Your task to perform on an android device: Show me popular videos on Youtube Image 0: 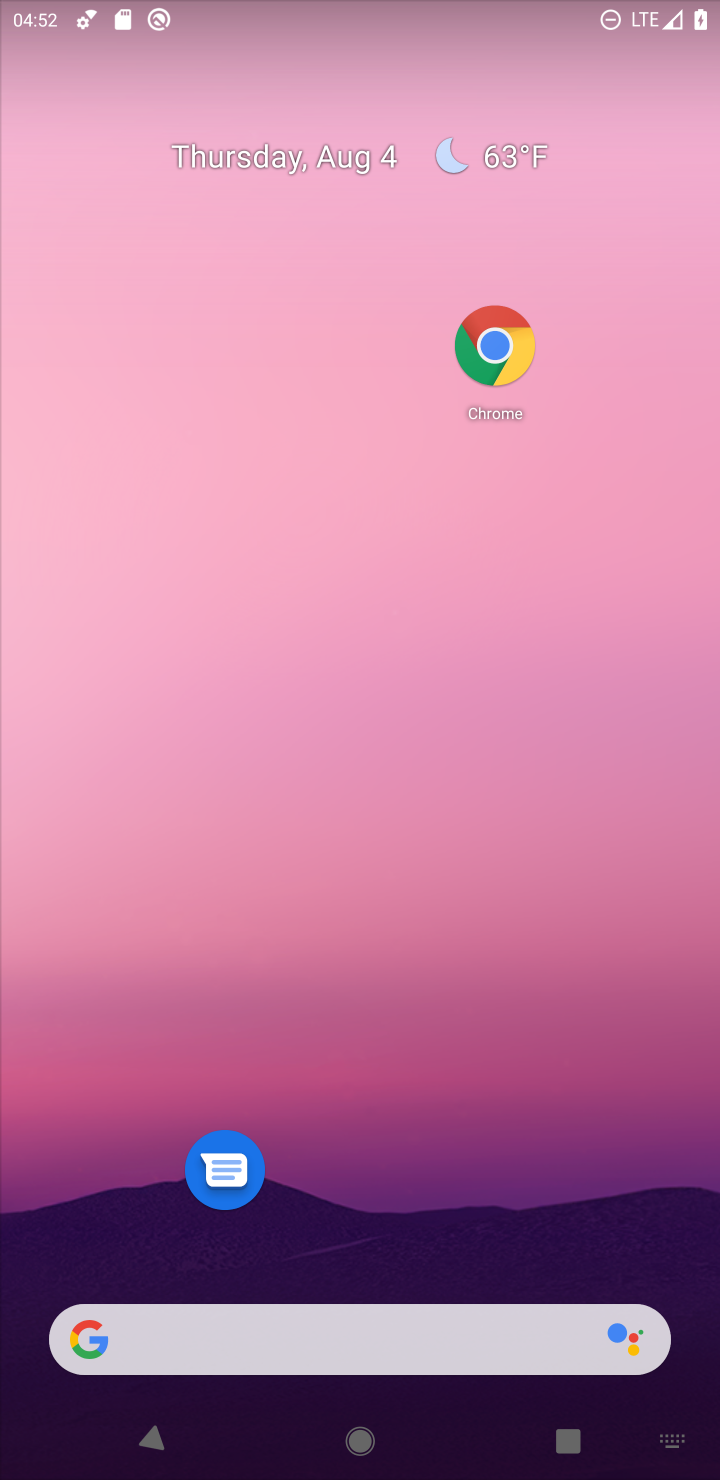
Step 0: drag from (672, 1250) to (567, 248)
Your task to perform on an android device: Show me popular videos on Youtube Image 1: 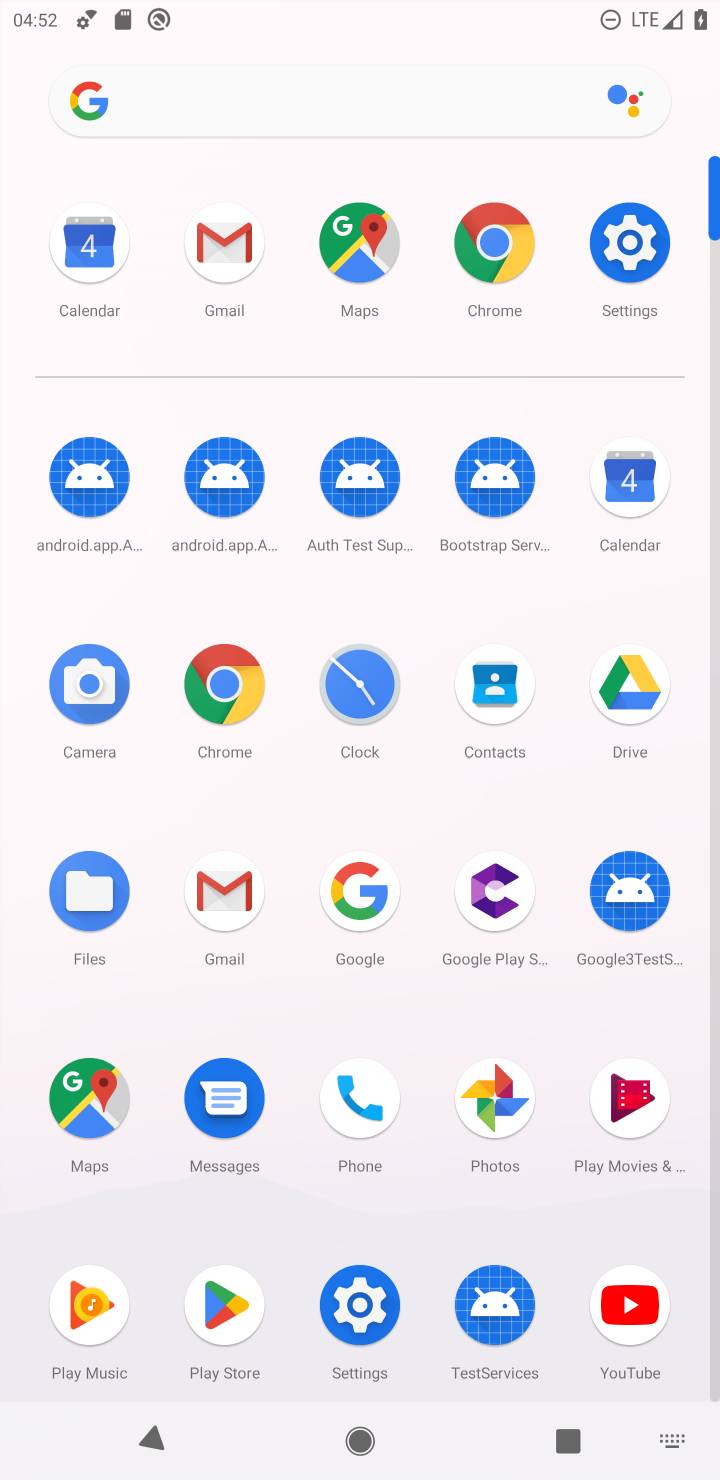
Step 1: click (634, 1319)
Your task to perform on an android device: Show me popular videos on Youtube Image 2: 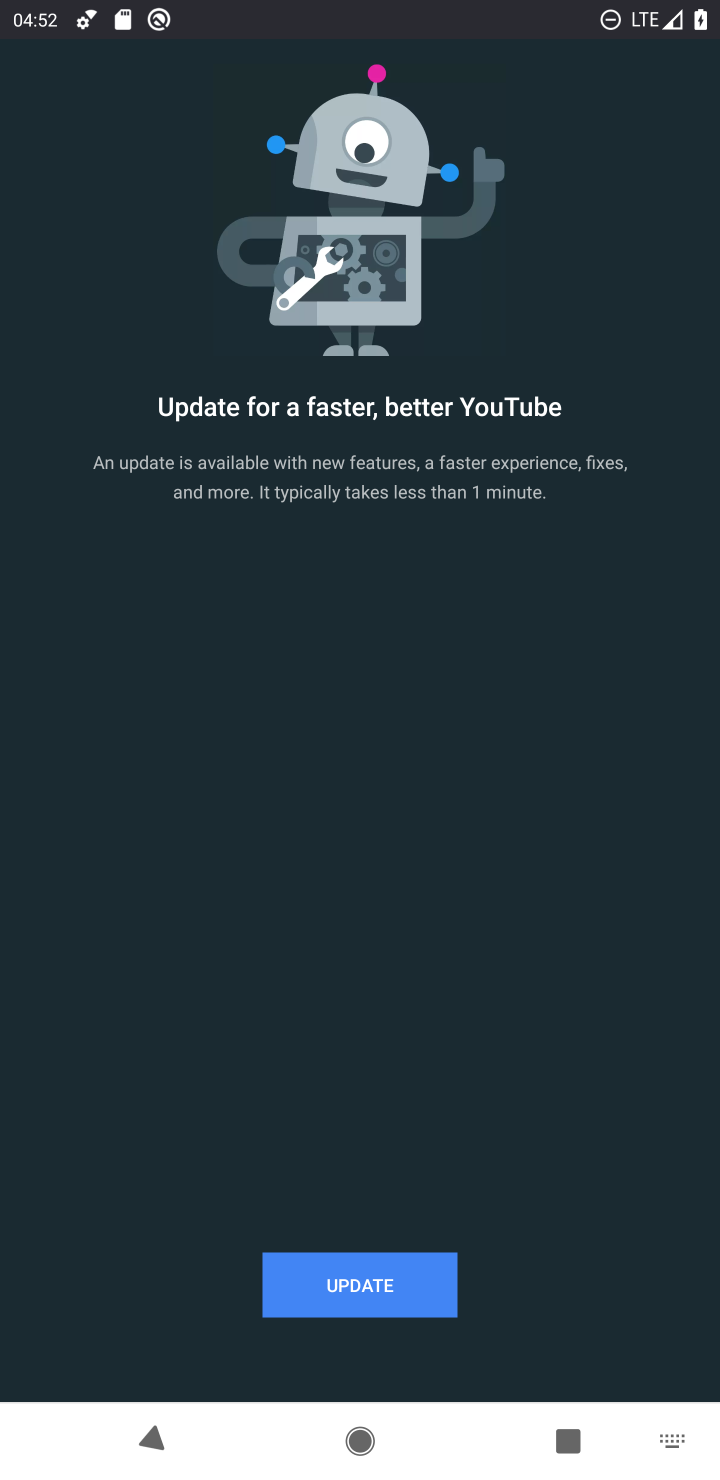
Step 2: click (387, 1306)
Your task to perform on an android device: Show me popular videos on Youtube Image 3: 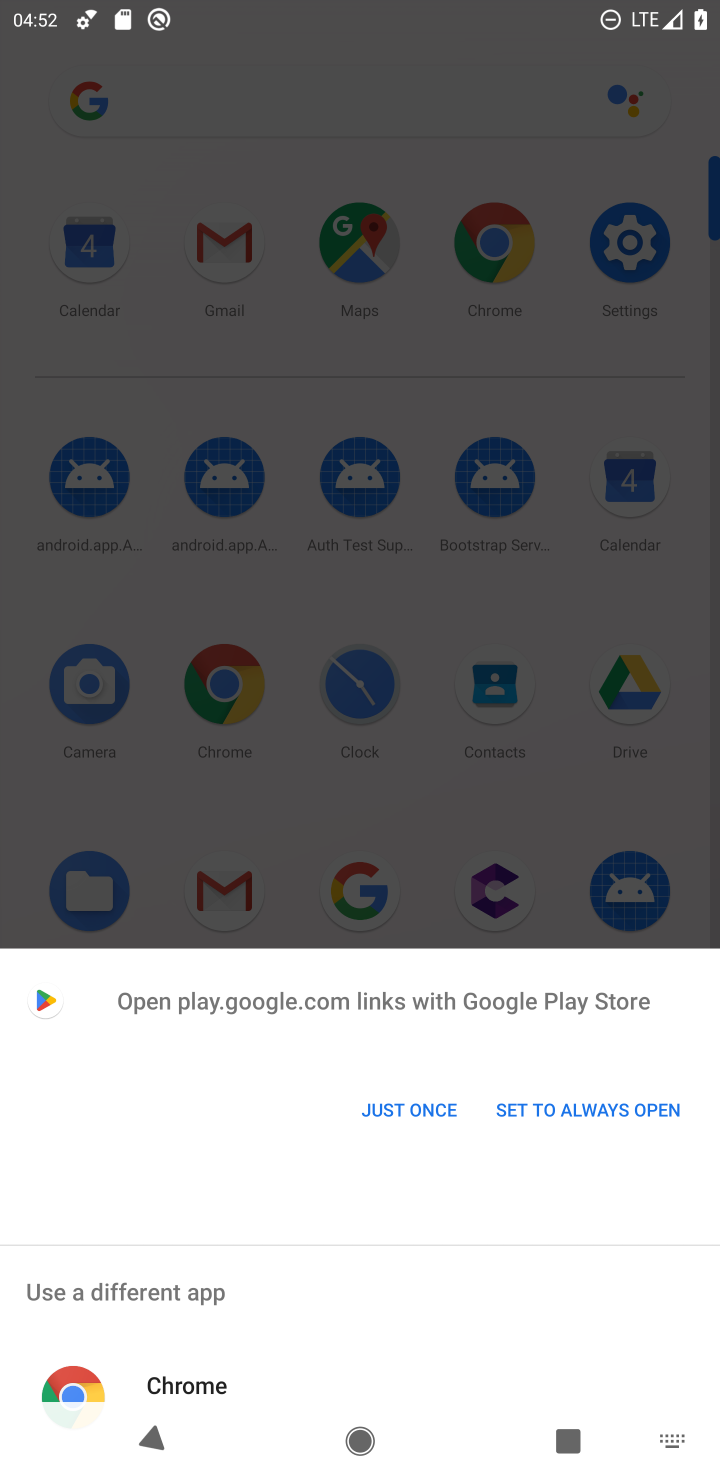
Step 3: click (419, 1133)
Your task to perform on an android device: Show me popular videos on Youtube Image 4: 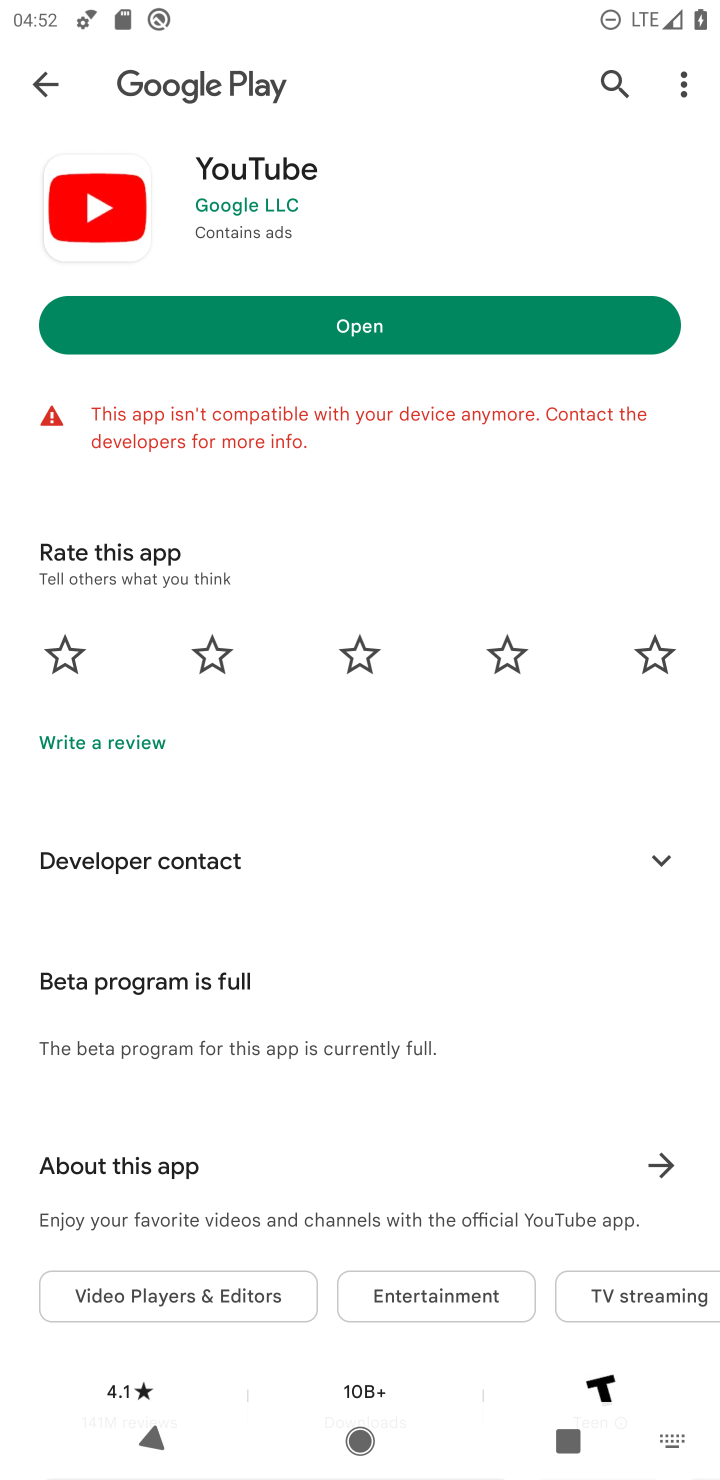
Step 4: click (451, 334)
Your task to perform on an android device: Show me popular videos on Youtube Image 5: 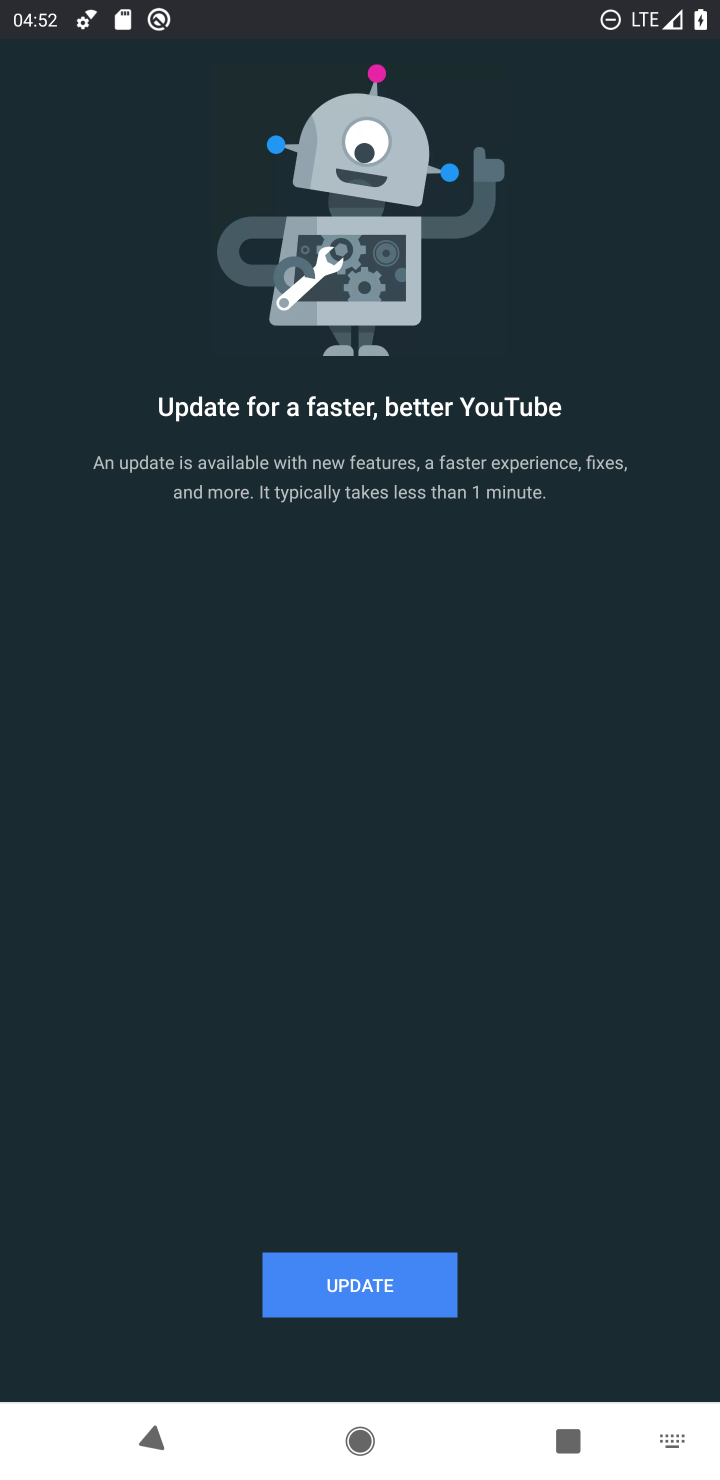
Step 5: task complete